Your task to perform on an android device: Is it going to rain tomorrow? Image 0: 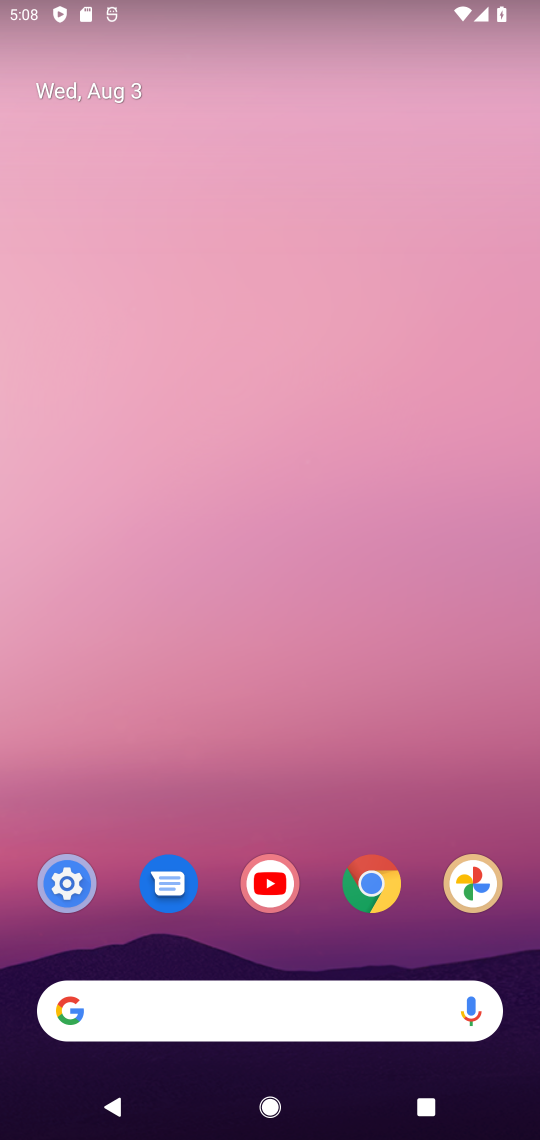
Step 0: drag from (296, 981) to (343, 188)
Your task to perform on an android device: Is it going to rain tomorrow? Image 1: 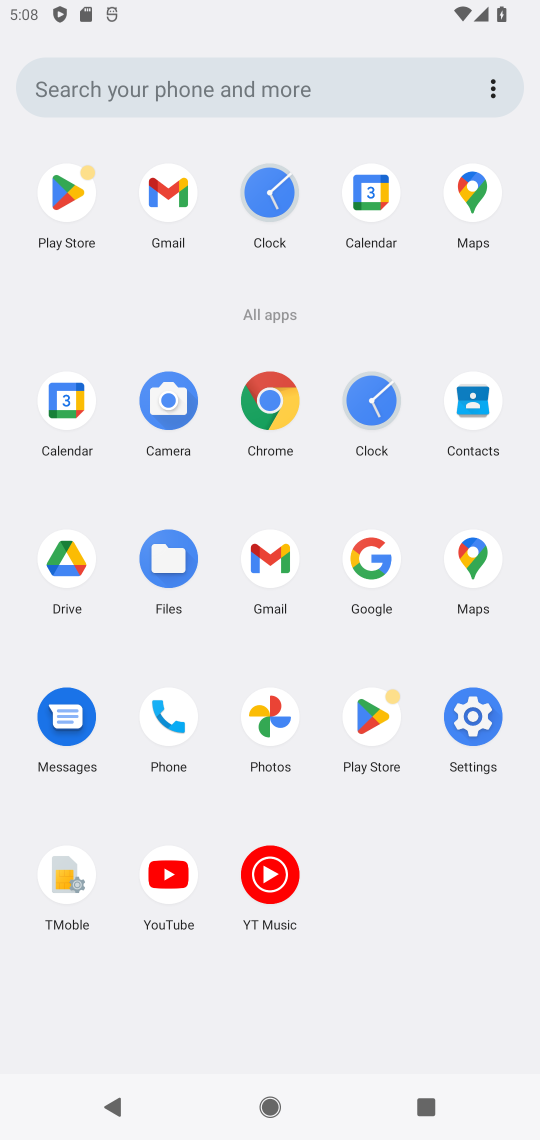
Step 1: click (370, 560)
Your task to perform on an android device: Is it going to rain tomorrow? Image 2: 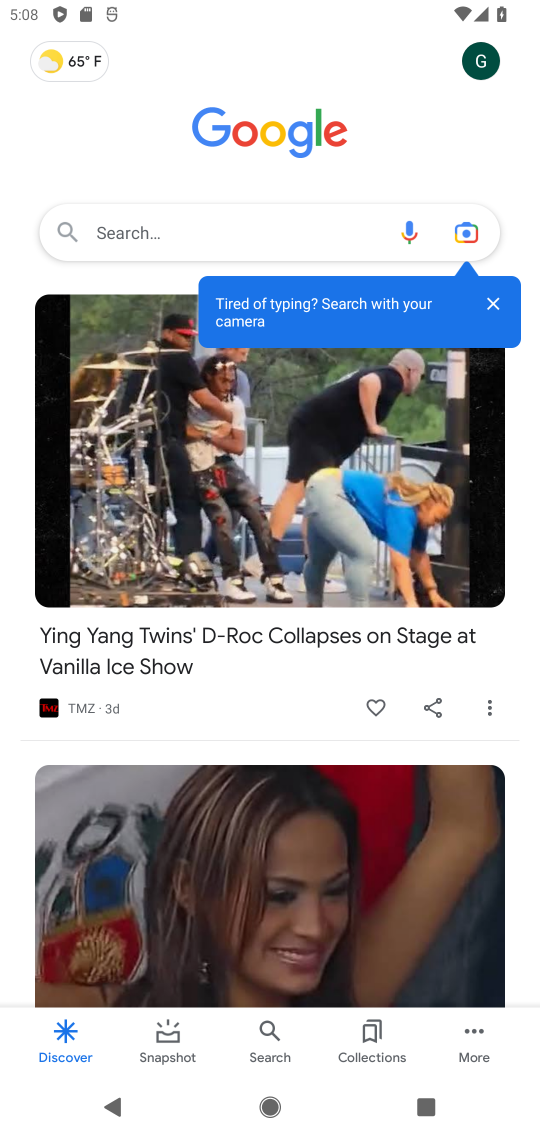
Step 2: click (212, 224)
Your task to perform on an android device: Is it going to rain tomorrow? Image 3: 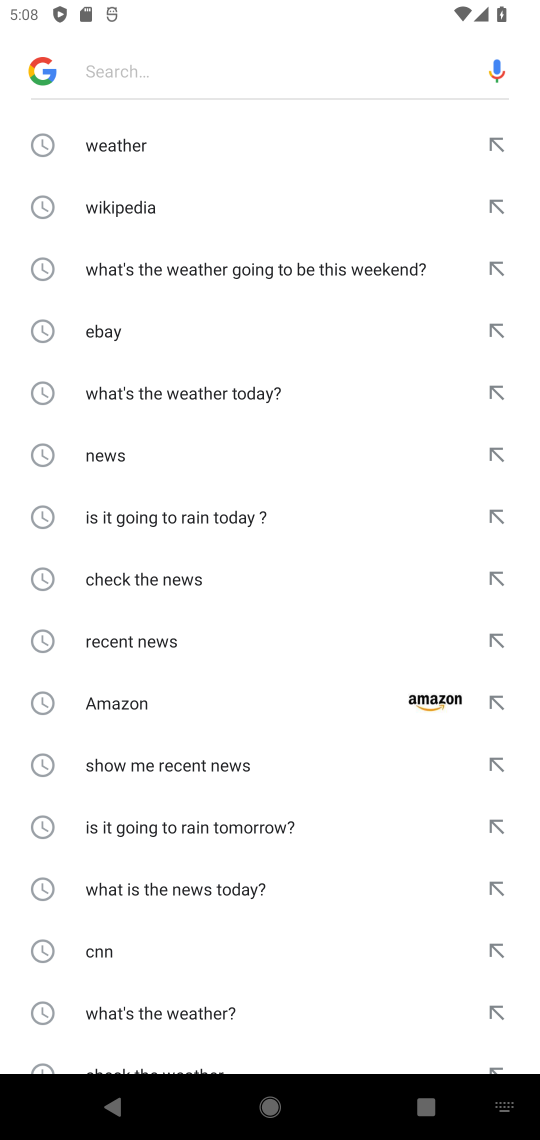
Step 3: click (240, 818)
Your task to perform on an android device: Is it going to rain tomorrow? Image 4: 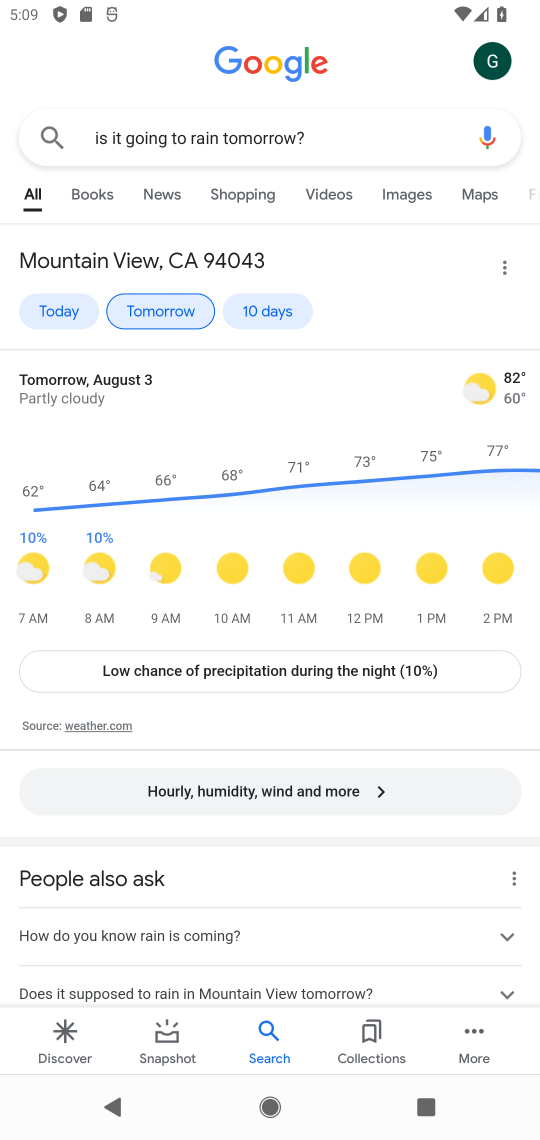
Step 4: task complete